Your task to perform on an android device: Find coffee shops on Maps Image 0: 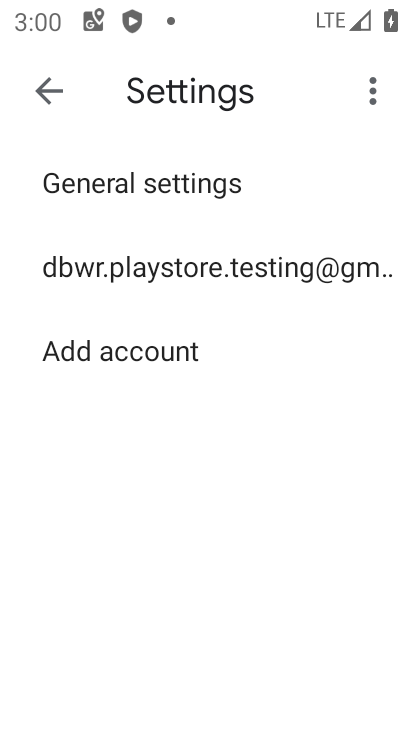
Step 0: press home button
Your task to perform on an android device: Find coffee shops on Maps Image 1: 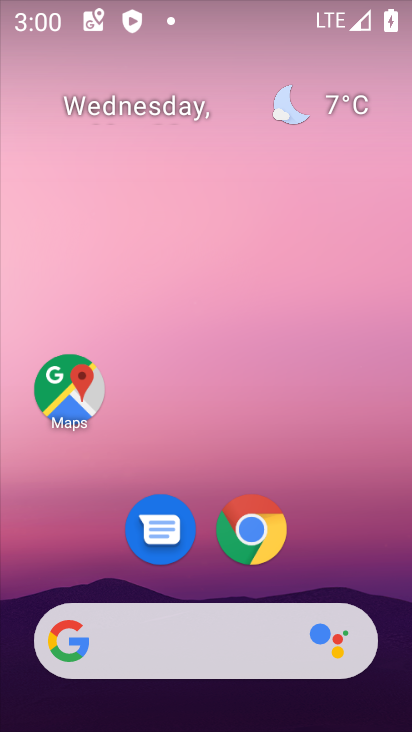
Step 1: drag from (395, 446) to (328, 86)
Your task to perform on an android device: Find coffee shops on Maps Image 2: 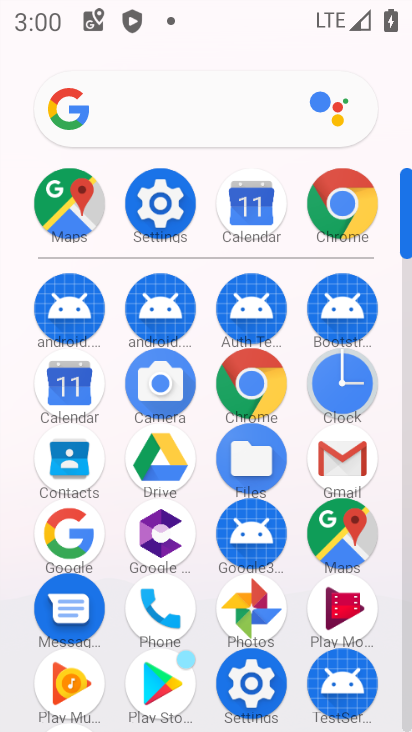
Step 2: click (68, 196)
Your task to perform on an android device: Find coffee shops on Maps Image 3: 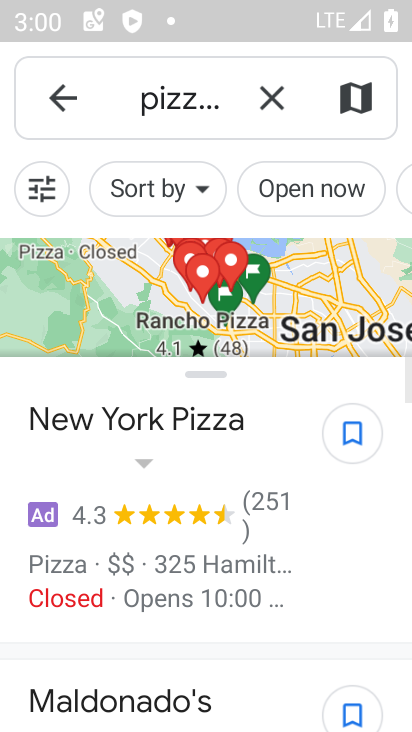
Step 3: click (252, 103)
Your task to perform on an android device: Find coffee shops on Maps Image 4: 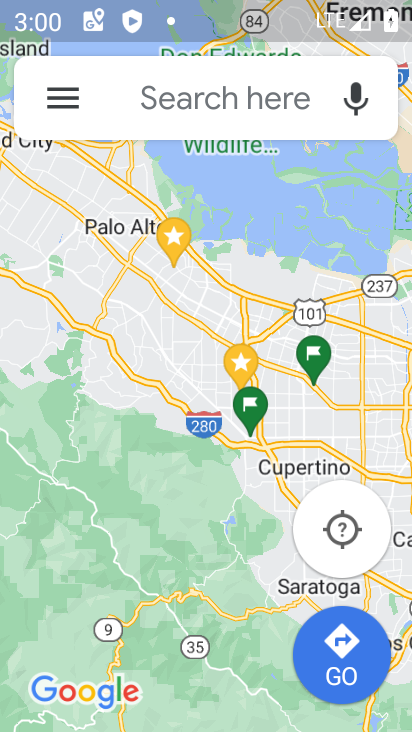
Step 4: click (255, 99)
Your task to perform on an android device: Find coffee shops on Maps Image 5: 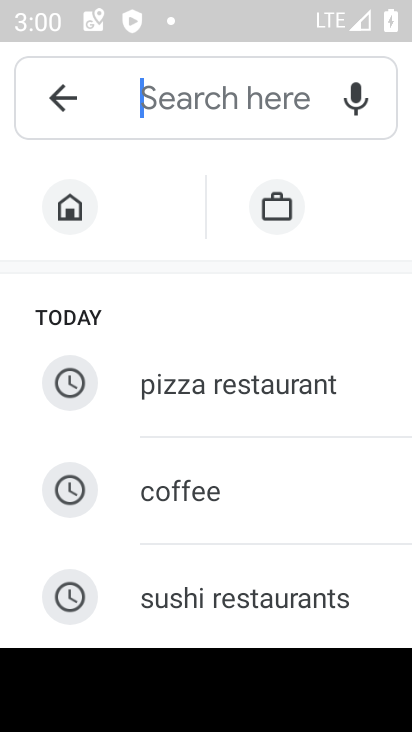
Step 5: click (209, 483)
Your task to perform on an android device: Find coffee shops on Maps Image 6: 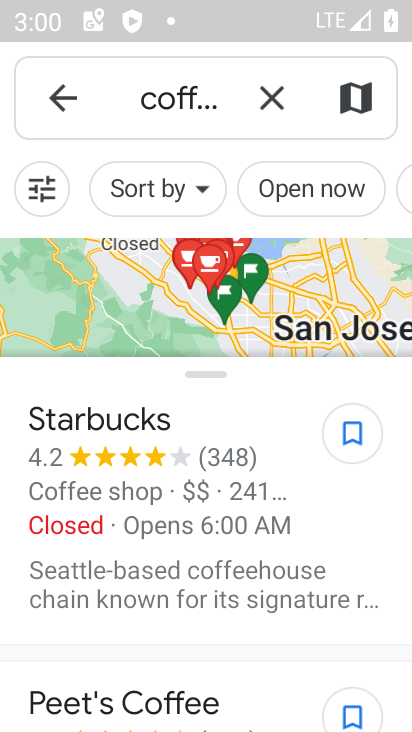
Step 6: task complete